Your task to perform on an android device: Show me recent news Image 0: 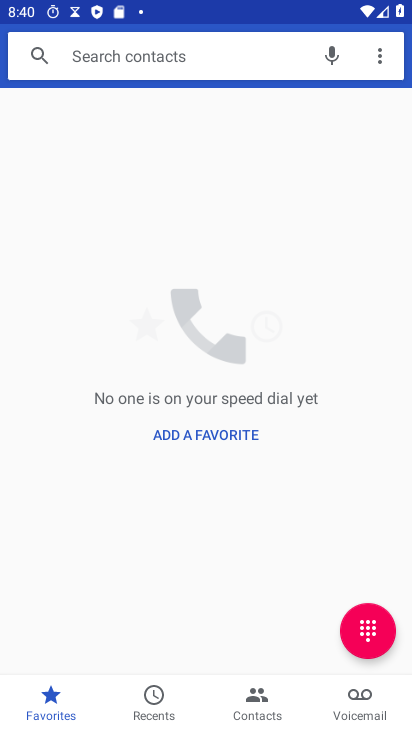
Step 0: press home button
Your task to perform on an android device: Show me recent news Image 1: 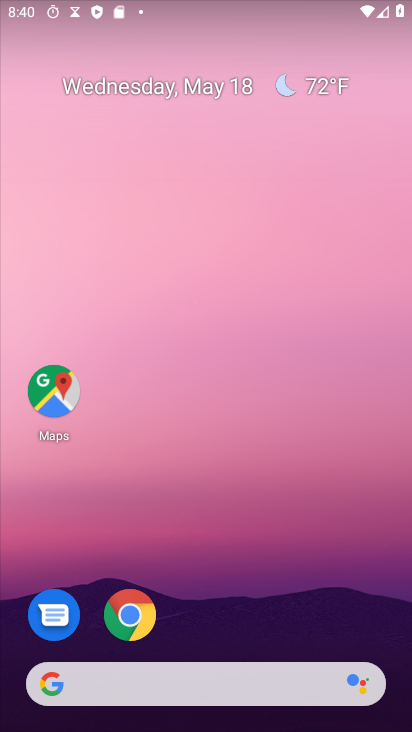
Step 1: drag from (247, 596) to (249, 126)
Your task to perform on an android device: Show me recent news Image 2: 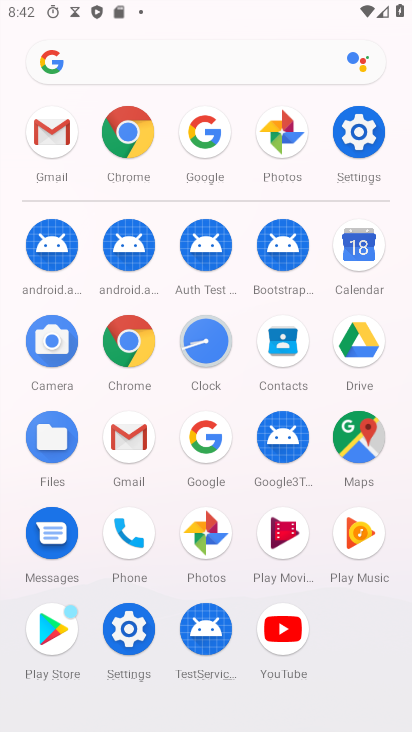
Step 2: click (205, 130)
Your task to perform on an android device: Show me recent news Image 3: 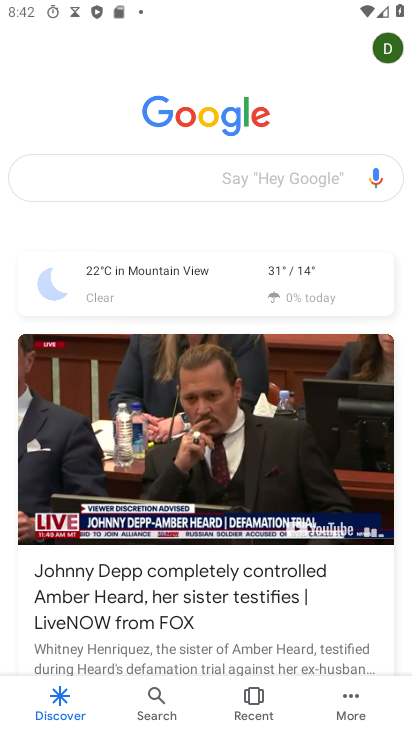
Step 3: click (194, 181)
Your task to perform on an android device: Show me recent news Image 4: 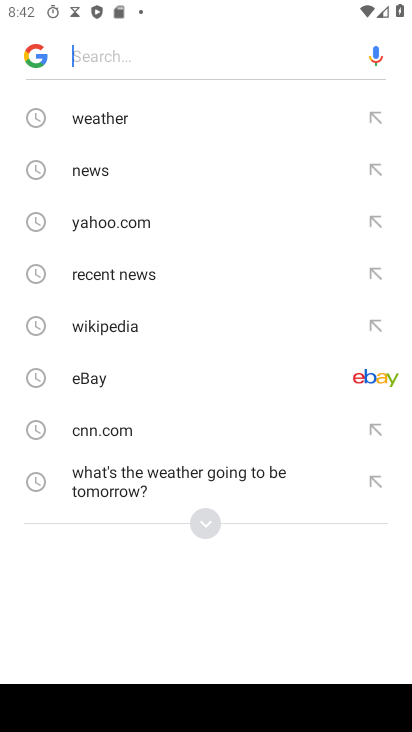
Step 4: click (119, 267)
Your task to perform on an android device: Show me recent news Image 5: 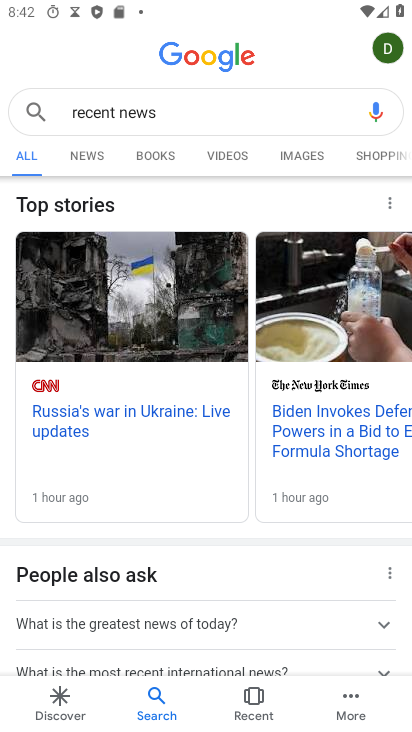
Step 5: click (91, 160)
Your task to perform on an android device: Show me recent news Image 6: 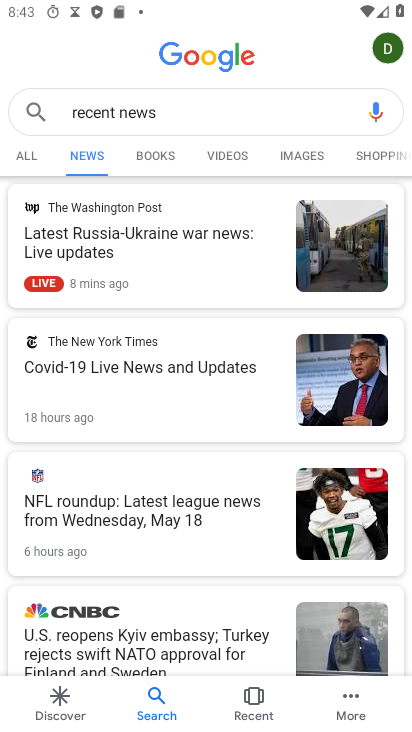
Step 6: task complete